Your task to perform on an android device: Is it going to rain today? Image 0: 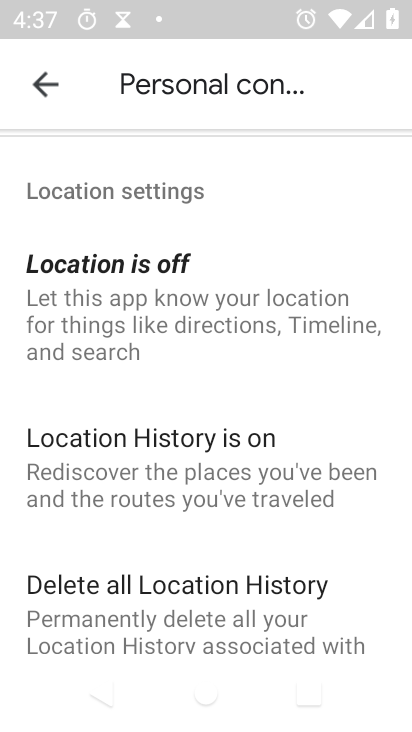
Step 0: press home button
Your task to perform on an android device: Is it going to rain today? Image 1: 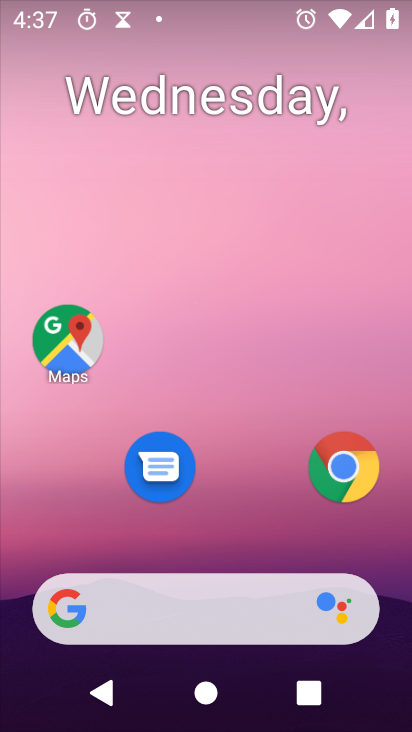
Step 1: click (369, 454)
Your task to perform on an android device: Is it going to rain today? Image 2: 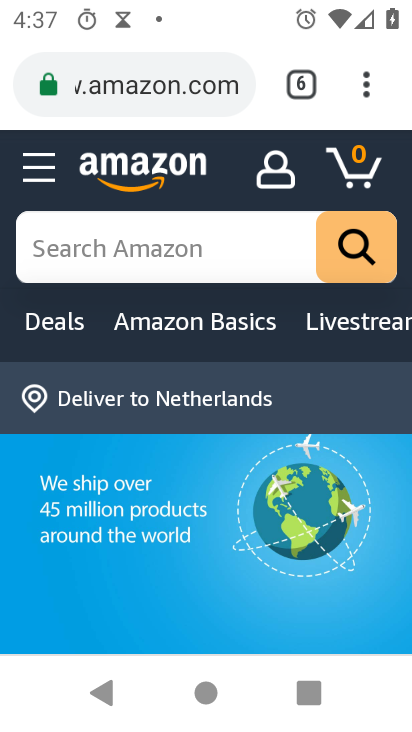
Step 2: click (155, 86)
Your task to perform on an android device: Is it going to rain today? Image 3: 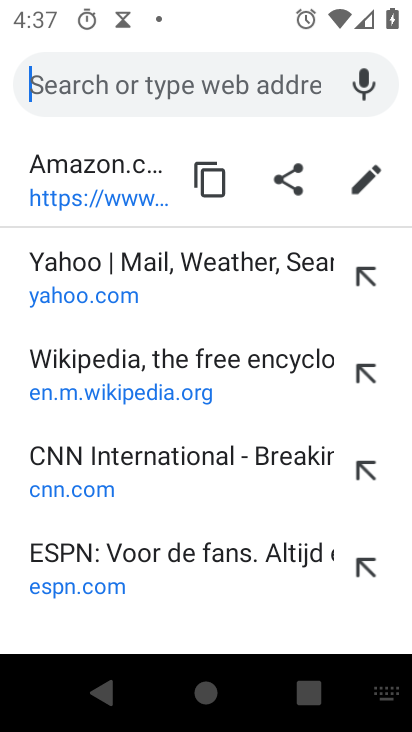
Step 3: type "Is it going to rain today?"
Your task to perform on an android device: Is it going to rain today? Image 4: 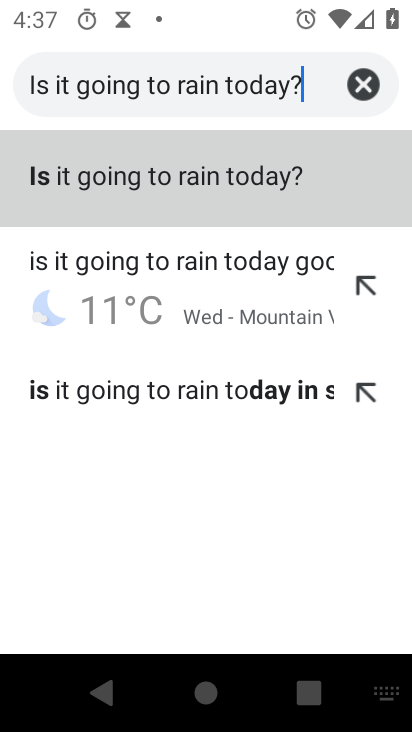
Step 4: click (287, 169)
Your task to perform on an android device: Is it going to rain today? Image 5: 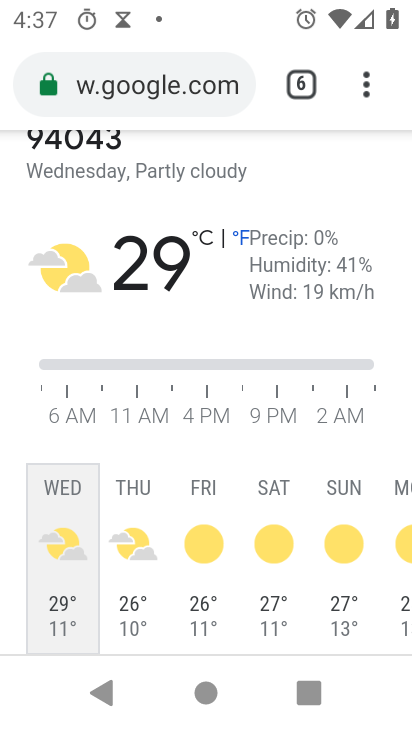
Step 5: task complete